Your task to perform on an android device: turn on improve location accuracy Image 0: 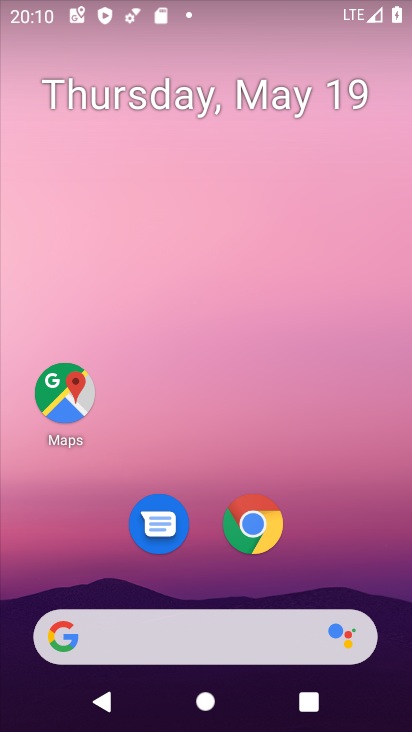
Step 0: drag from (320, 531) to (278, 53)
Your task to perform on an android device: turn on improve location accuracy Image 1: 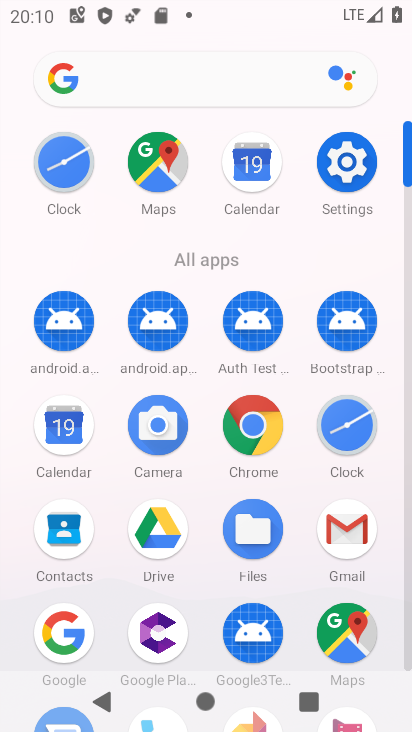
Step 1: click (335, 157)
Your task to perform on an android device: turn on improve location accuracy Image 2: 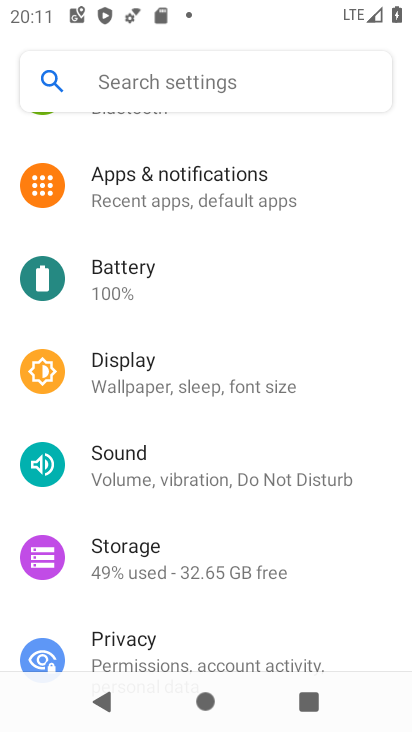
Step 2: drag from (215, 533) to (248, 129)
Your task to perform on an android device: turn on improve location accuracy Image 3: 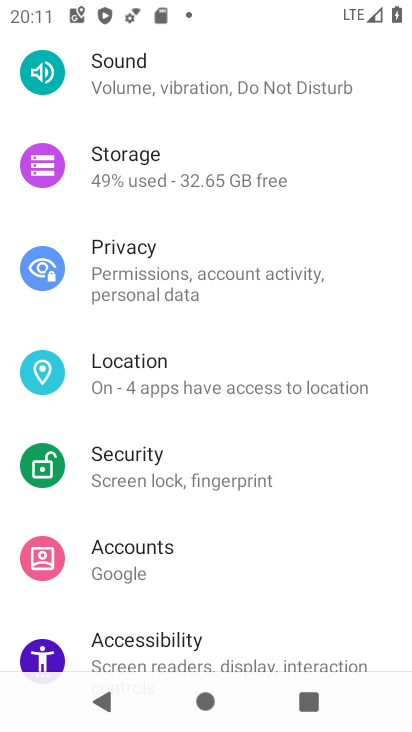
Step 3: click (204, 380)
Your task to perform on an android device: turn on improve location accuracy Image 4: 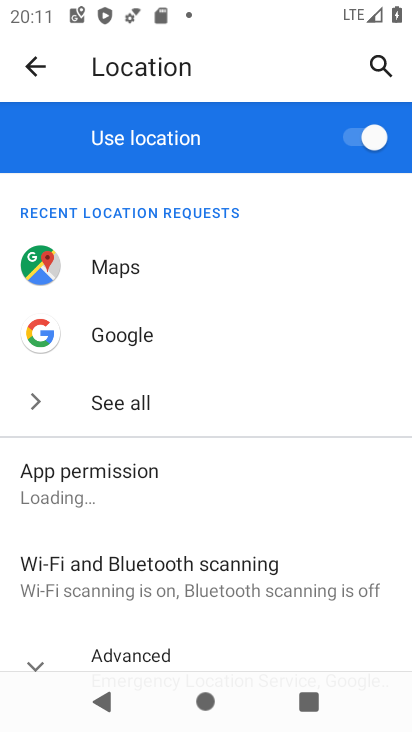
Step 4: drag from (182, 480) to (193, 95)
Your task to perform on an android device: turn on improve location accuracy Image 5: 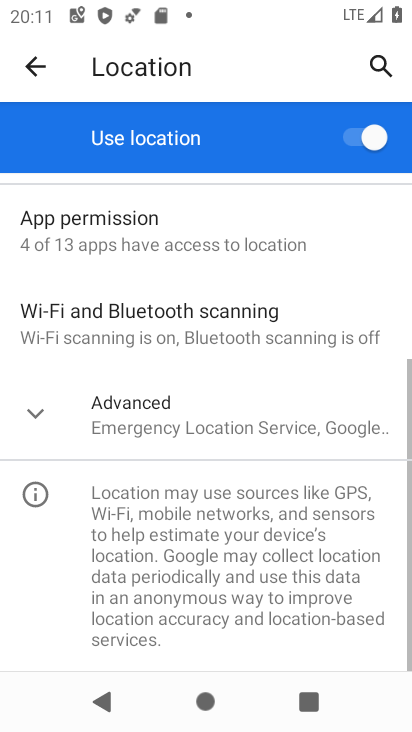
Step 5: click (26, 409)
Your task to perform on an android device: turn on improve location accuracy Image 6: 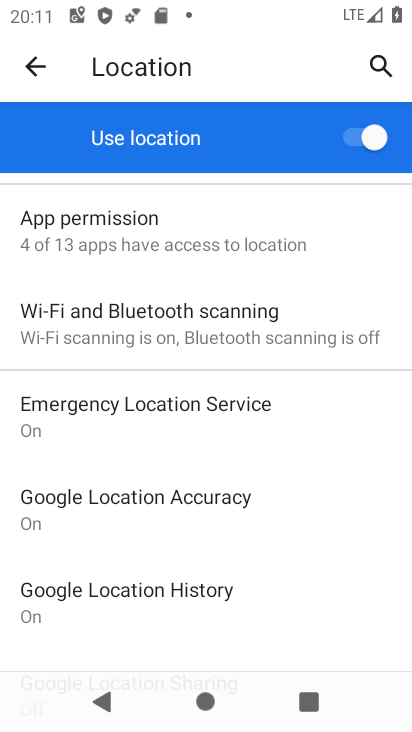
Step 6: task complete